Your task to perform on an android device: change the clock style Image 0: 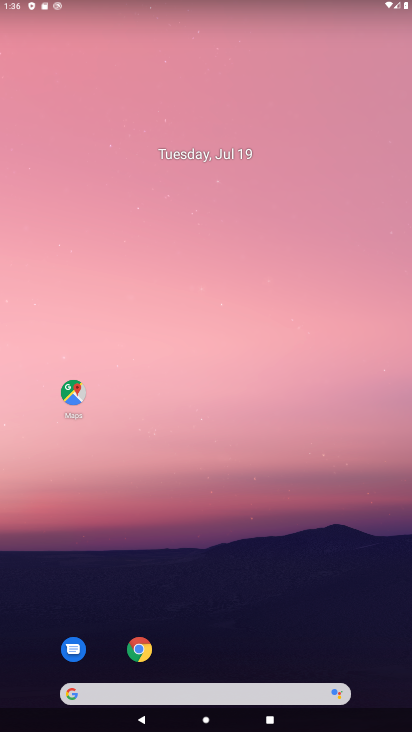
Step 0: drag from (326, 588) to (310, 33)
Your task to perform on an android device: change the clock style Image 1: 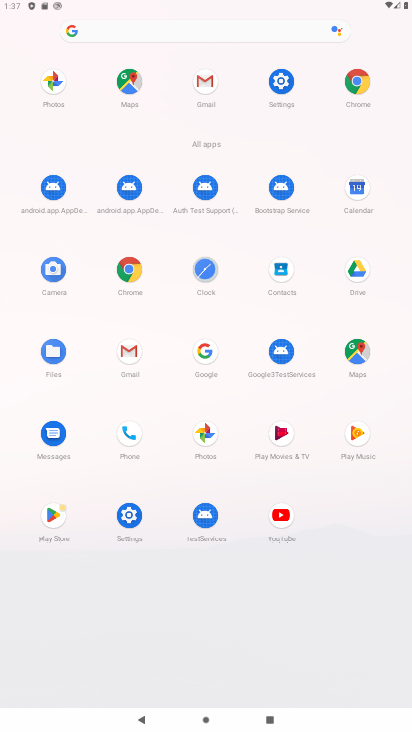
Step 1: click (210, 266)
Your task to perform on an android device: change the clock style Image 2: 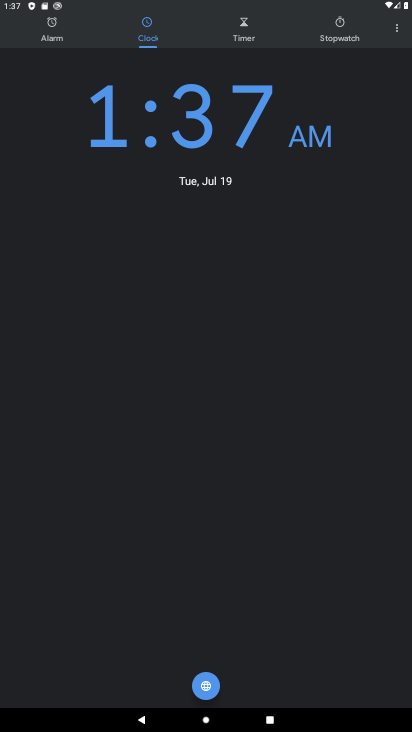
Step 2: click (399, 27)
Your task to perform on an android device: change the clock style Image 3: 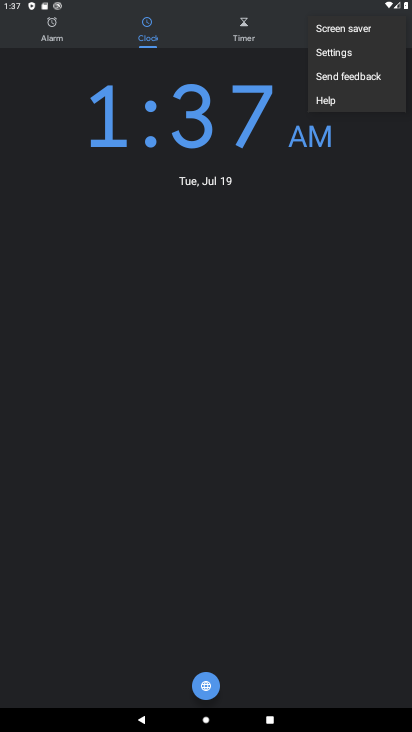
Step 3: click (341, 57)
Your task to perform on an android device: change the clock style Image 4: 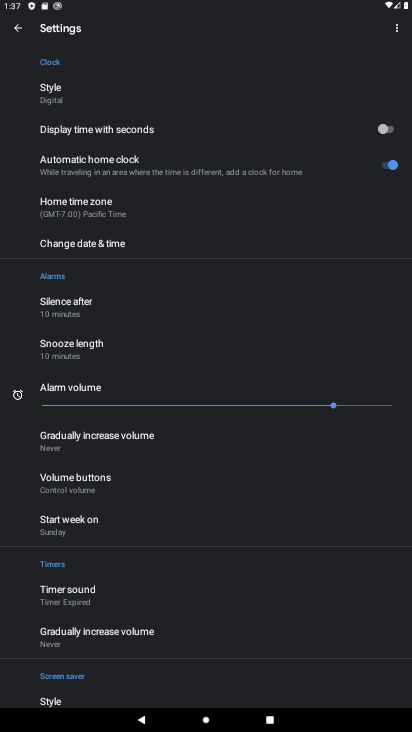
Step 4: click (78, 96)
Your task to perform on an android device: change the clock style Image 5: 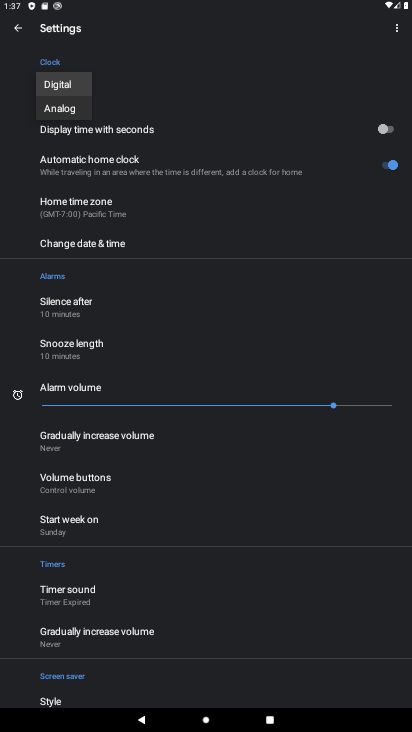
Step 5: click (69, 109)
Your task to perform on an android device: change the clock style Image 6: 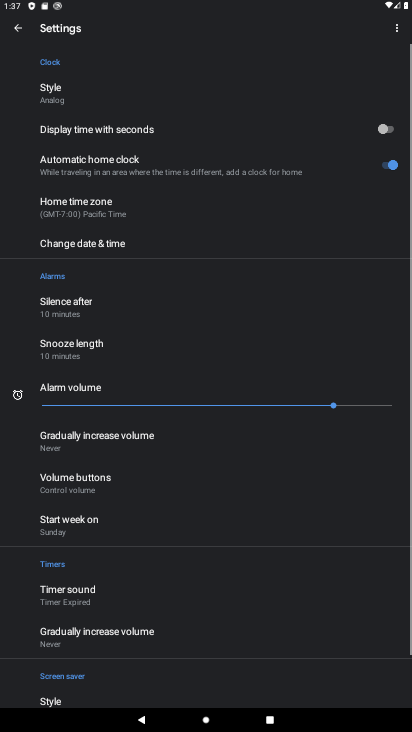
Step 6: task complete